Your task to perform on an android device: turn notification dots off Image 0: 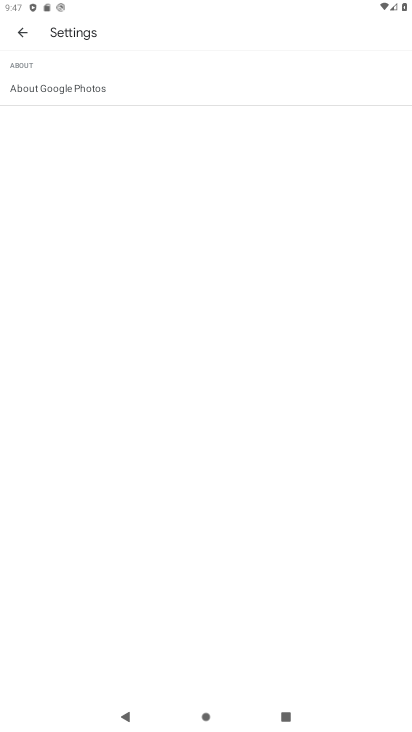
Step 0: press home button
Your task to perform on an android device: turn notification dots off Image 1: 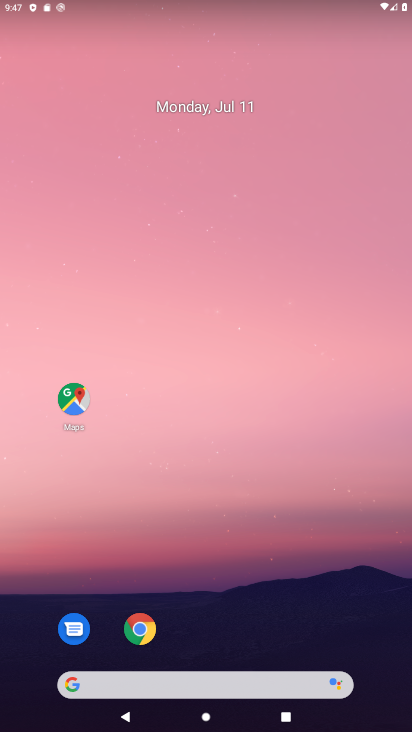
Step 1: drag from (283, 625) to (280, 2)
Your task to perform on an android device: turn notification dots off Image 2: 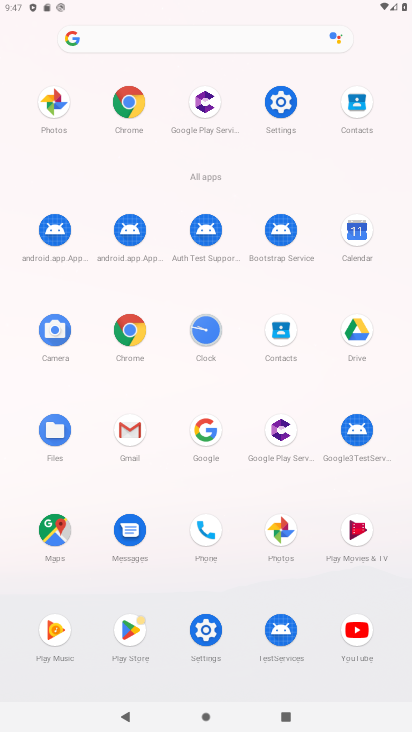
Step 2: click (205, 635)
Your task to perform on an android device: turn notification dots off Image 3: 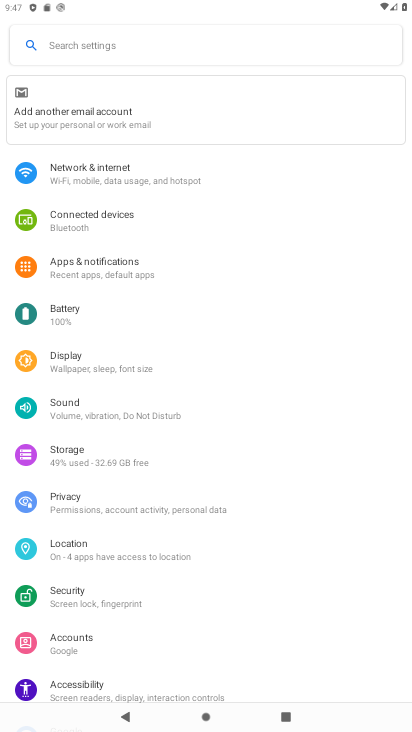
Step 3: click (107, 261)
Your task to perform on an android device: turn notification dots off Image 4: 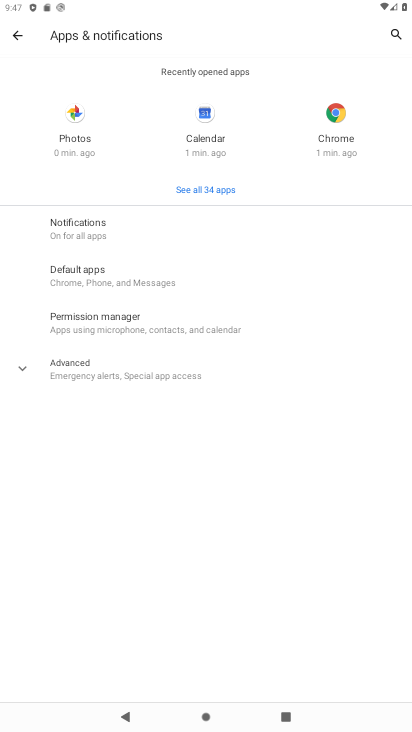
Step 4: click (117, 374)
Your task to perform on an android device: turn notification dots off Image 5: 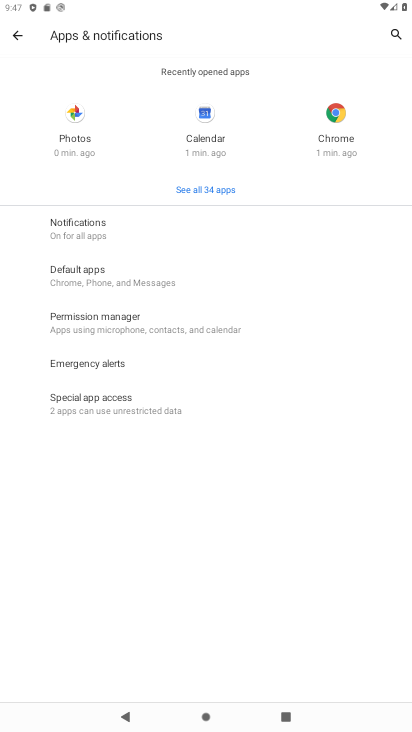
Step 5: click (145, 232)
Your task to perform on an android device: turn notification dots off Image 6: 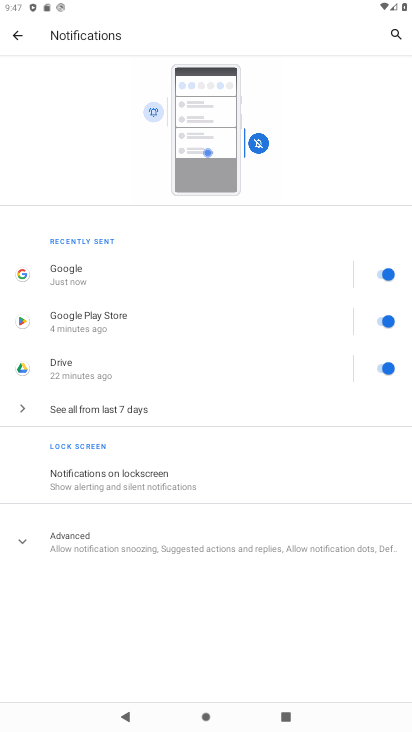
Step 6: click (177, 545)
Your task to perform on an android device: turn notification dots off Image 7: 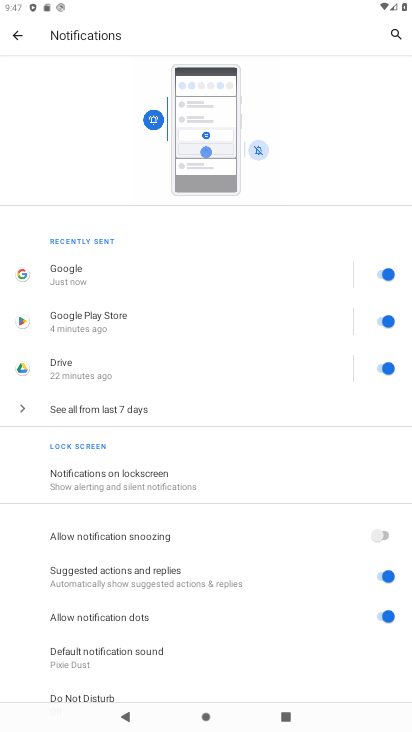
Step 7: click (387, 616)
Your task to perform on an android device: turn notification dots off Image 8: 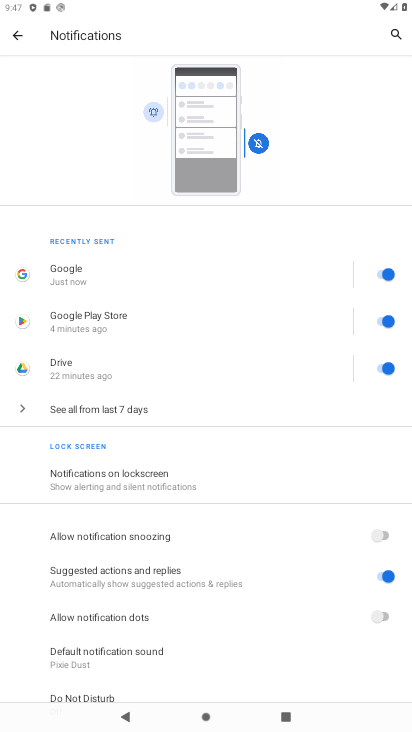
Step 8: task complete